Your task to perform on an android device: Open eBay Image 0: 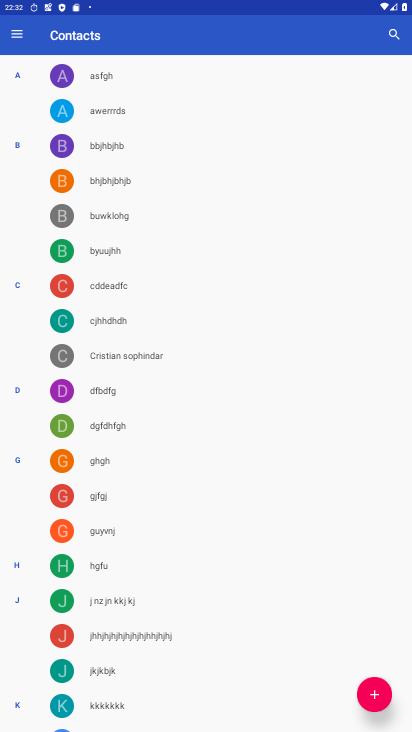
Step 0: press home button
Your task to perform on an android device: Open eBay Image 1: 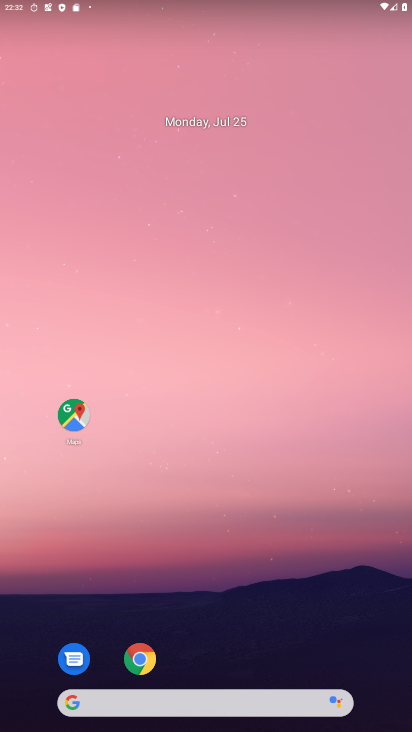
Step 1: click (149, 660)
Your task to perform on an android device: Open eBay Image 2: 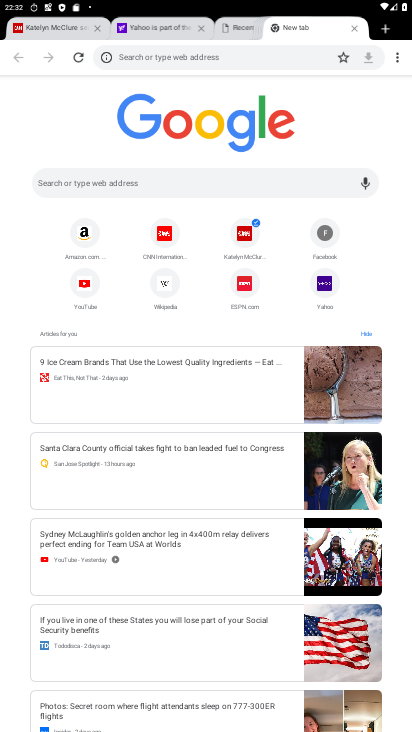
Step 2: click (136, 183)
Your task to perform on an android device: Open eBay Image 3: 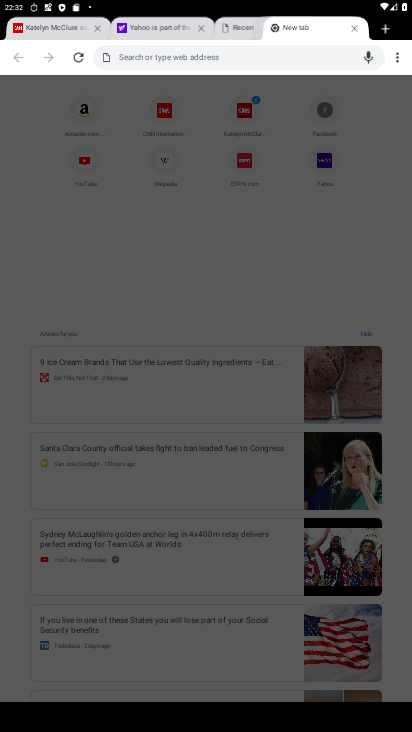
Step 3: type "eBay"
Your task to perform on an android device: Open eBay Image 4: 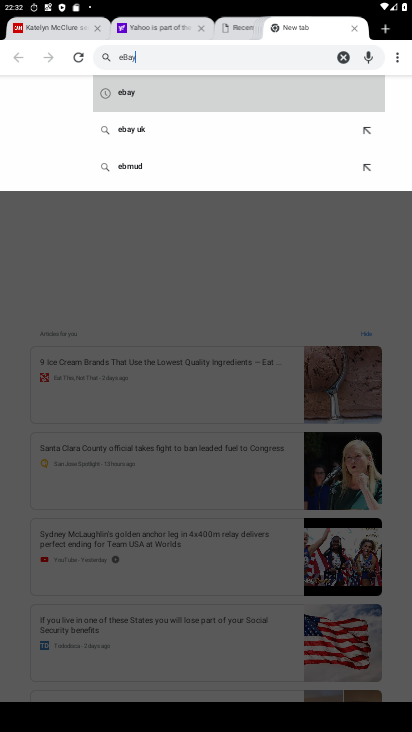
Step 4: type ""
Your task to perform on an android device: Open eBay Image 5: 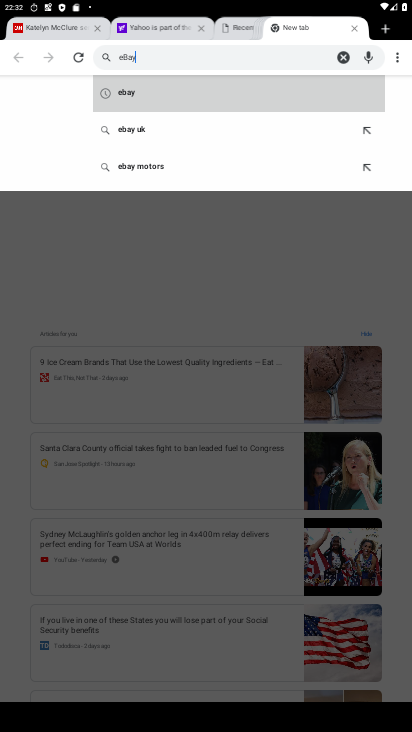
Step 5: click (154, 92)
Your task to perform on an android device: Open eBay Image 6: 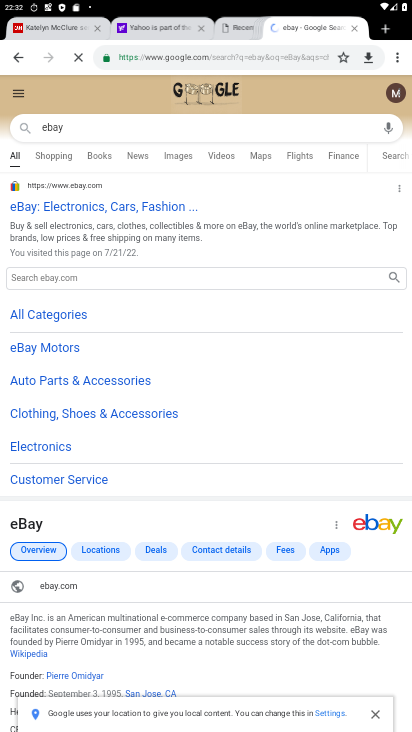
Step 6: click (76, 203)
Your task to perform on an android device: Open eBay Image 7: 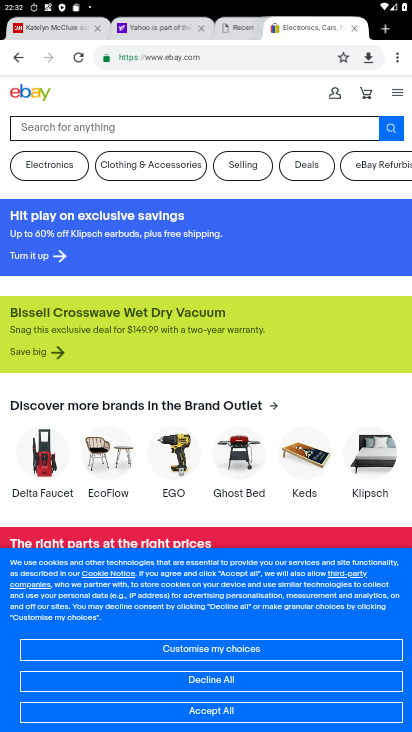
Step 7: task complete